Your task to perform on an android device: toggle data saver in the chrome app Image 0: 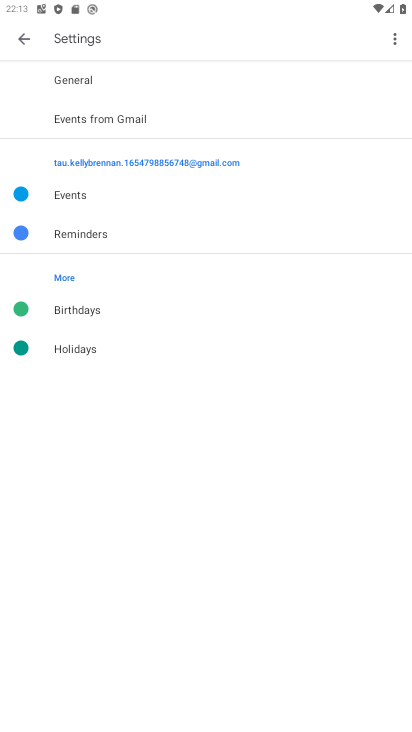
Step 0: press home button
Your task to perform on an android device: toggle data saver in the chrome app Image 1: 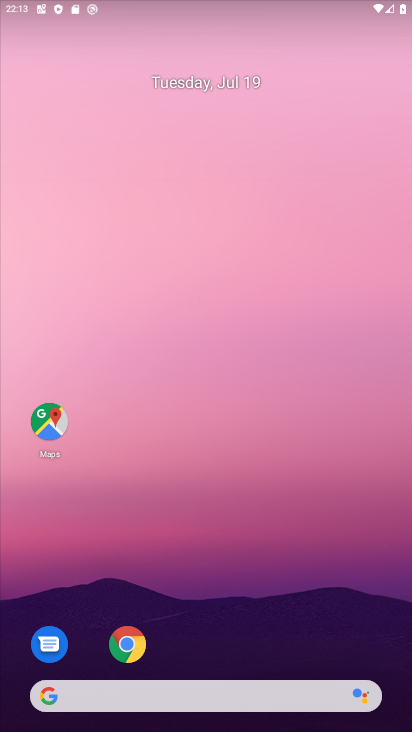
Step 1: drag from (263, 605) to (319, 83)
Your task to perform on an android device: toggle data saver in the chrome app Image 2: 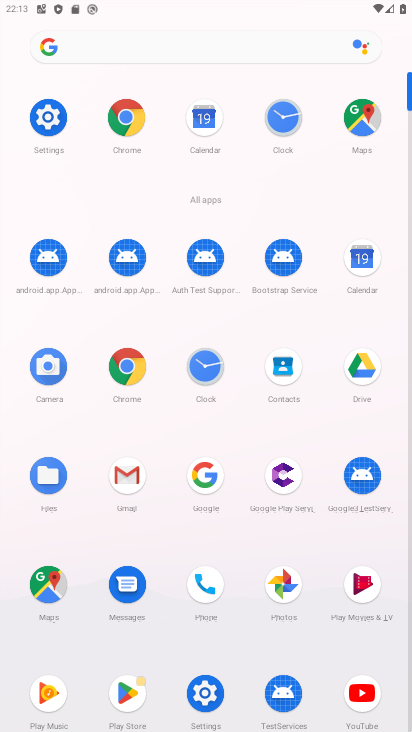
Step 2: click (135, 370)
Your task to perform on an android device: toggle data saver in the chrome app Image 3: 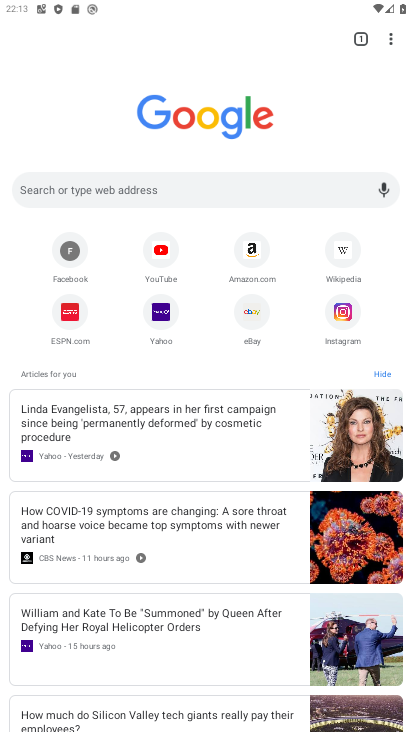
Step 3: drag from (391, 35) to (244, 334)
Your task to perform on an android device: toggle data saver in the chrome app Image 4: 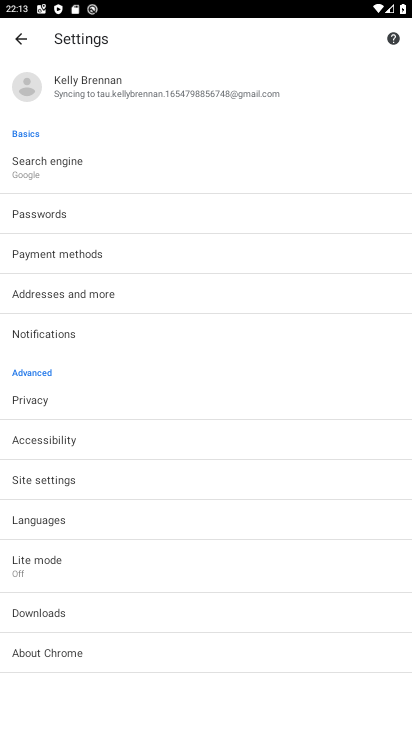
Step 4: click (34, 565)
Your task to perform on an android device: toggle data saver in the chrome app Image 5: 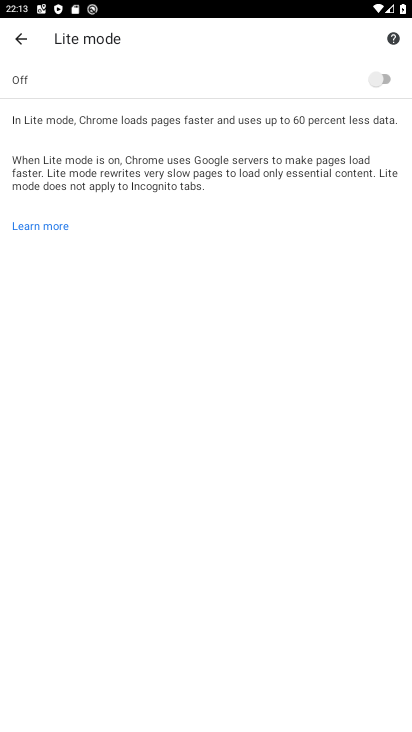
Step 5: click (390, 74)
Your task to perform on an android device: toggle data saver in the chrome app Image 6: 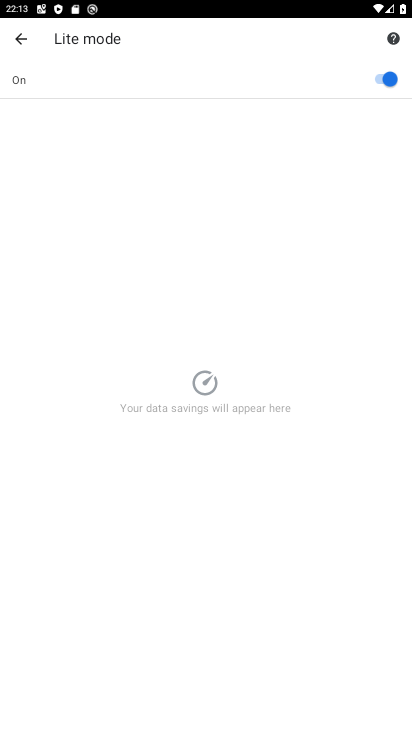
Step 6: task complete